Your task to perform on an android device: check battery use Image 0: 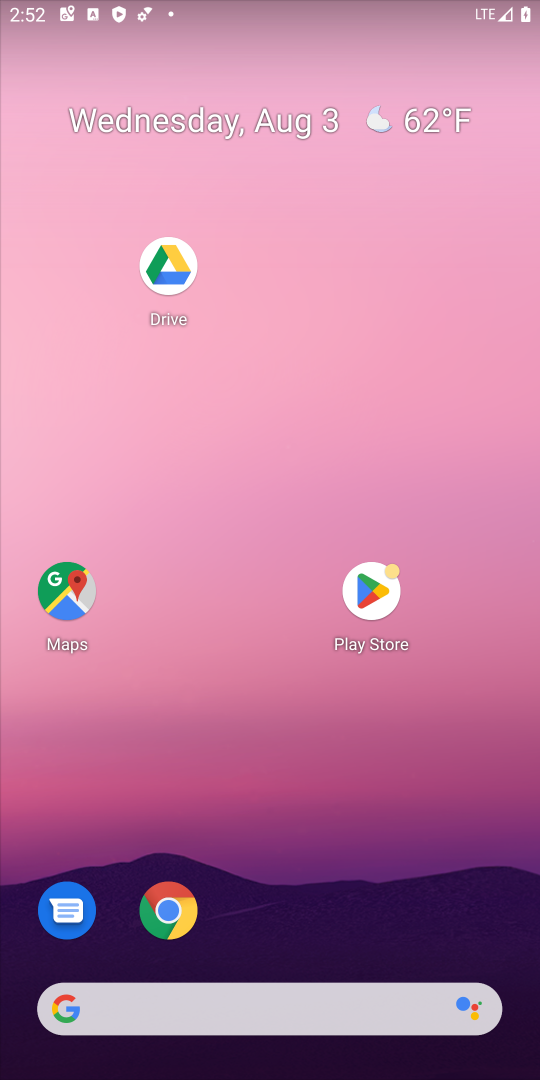
Step 0: drag from (359, 774) to (334, 5)
Your task to perform on an android device: check battery use Image 1: 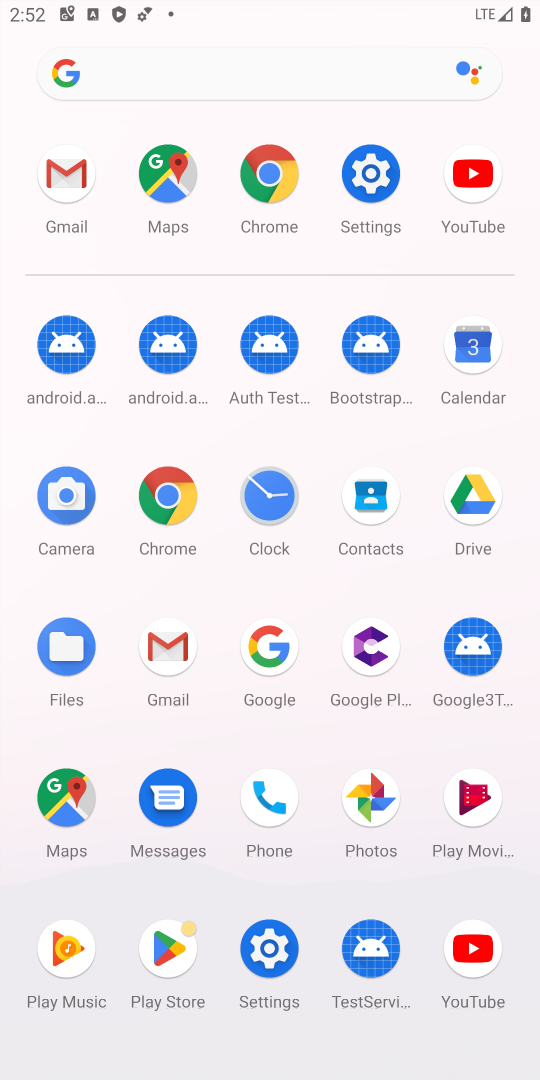
Step 1: click (374, 185)
Your task to perform on an android device: check battery use Image 2: 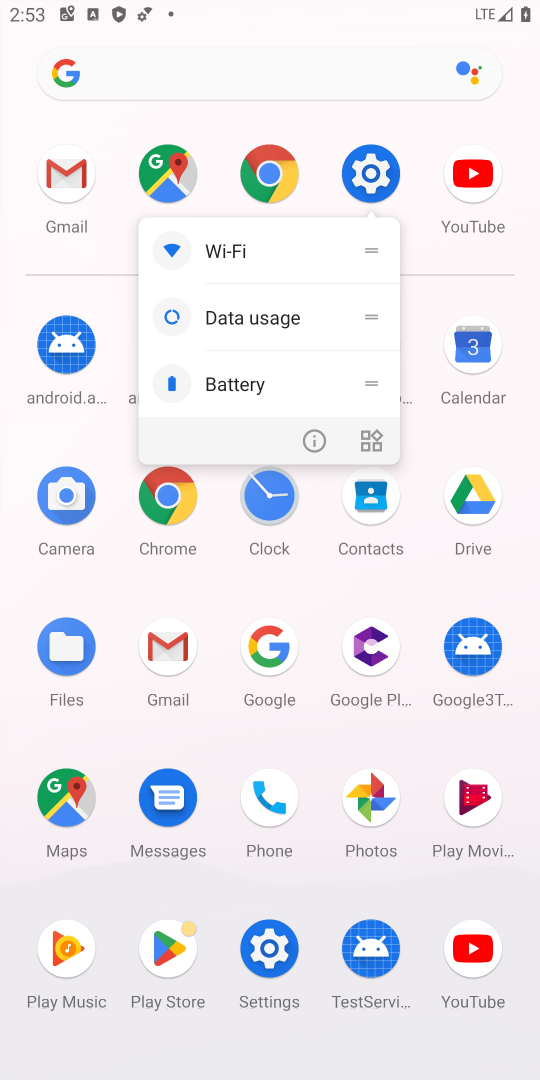
Step 2: click (384, 145)
Your task to perform on an android device: check battery use Image 3: 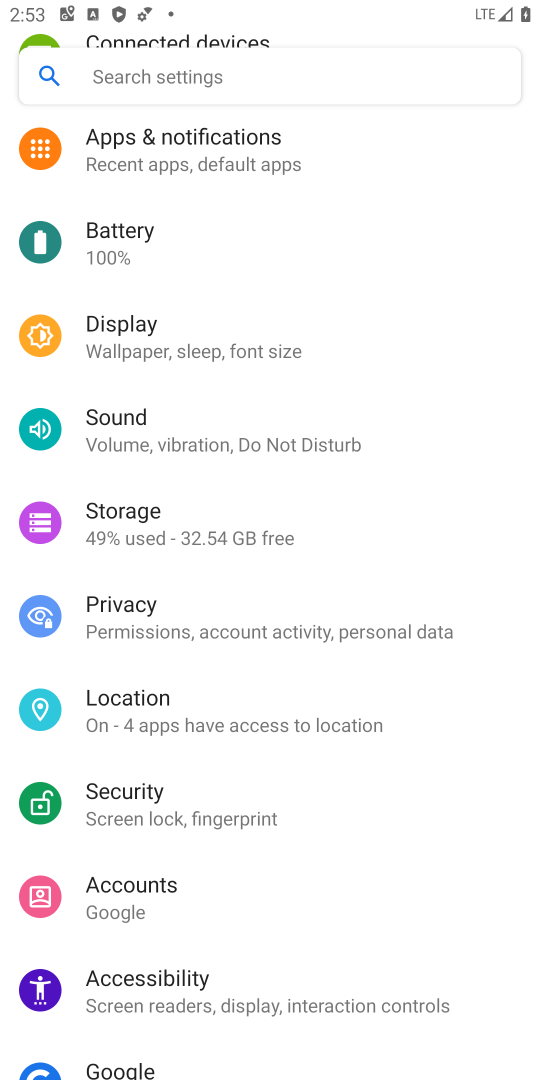
Step 3: click (107, 241)
Your task to perform on an android device: check battery use Image 4: 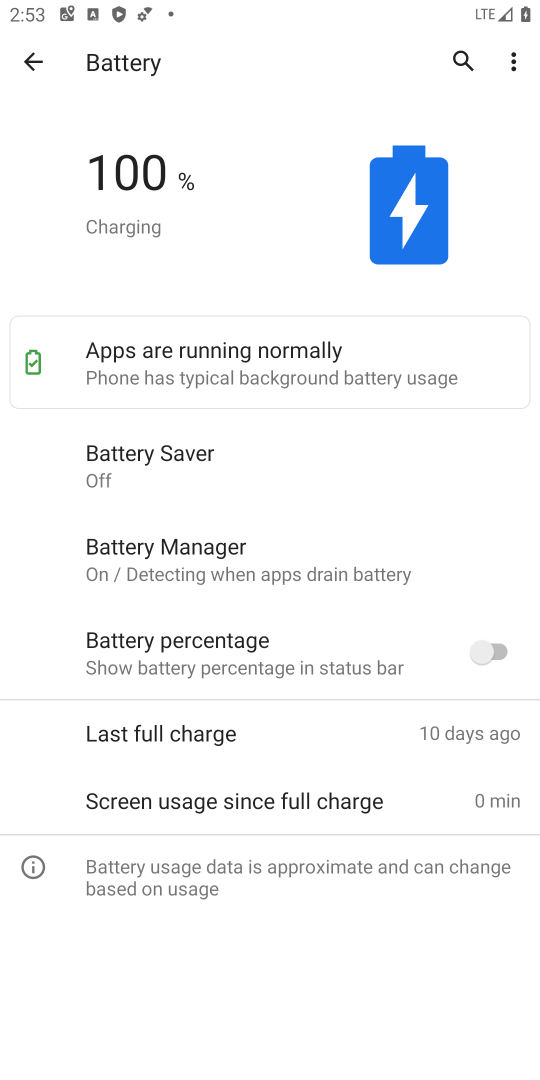
Step 4: task complete